Your task to perform on an android device: turn off location history Image 0: 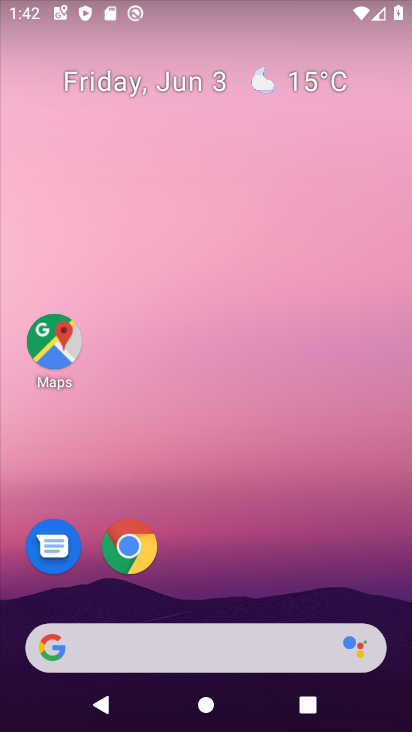
Step 0: drag from (330, 509) to (288, 0)
Your task to perform on an android device: turn off location history Image 1: 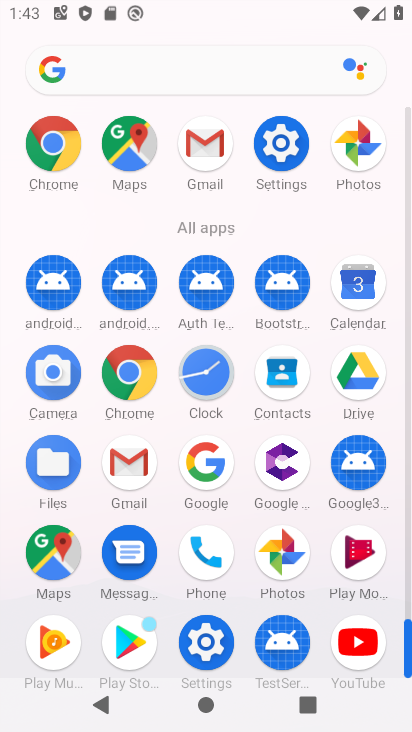
Step 1: click (295, 145)
Your task to perform on an android device: turn off location history Image 2: 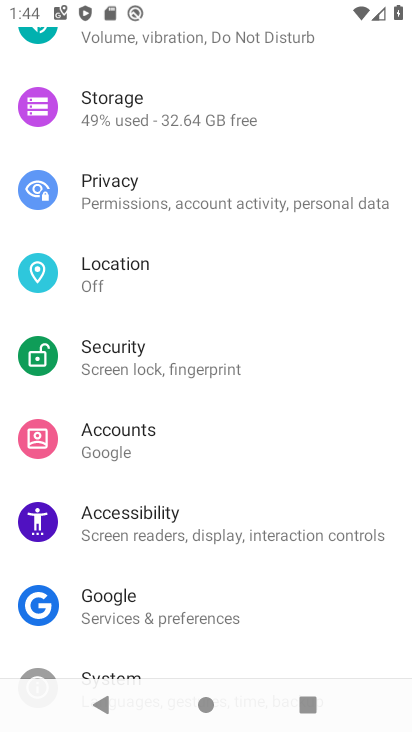
Step 2: click (136, 282)
Your task to perform on an android device: turn off location history Image 3: 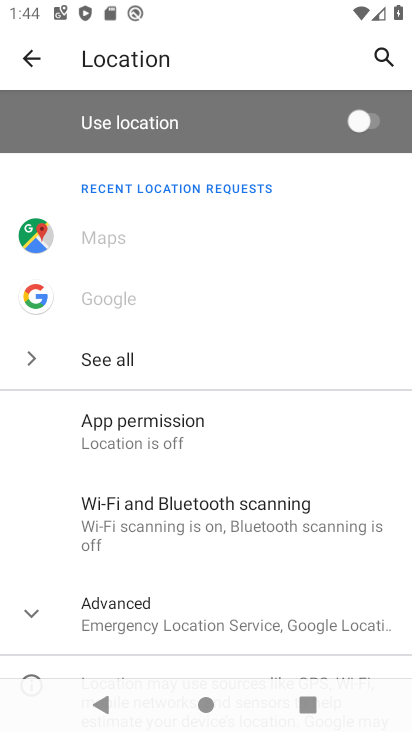
Step 3: drag from (261, 609) to (244, 236)
Your task to perform on an android device: turn off location history Image 4: 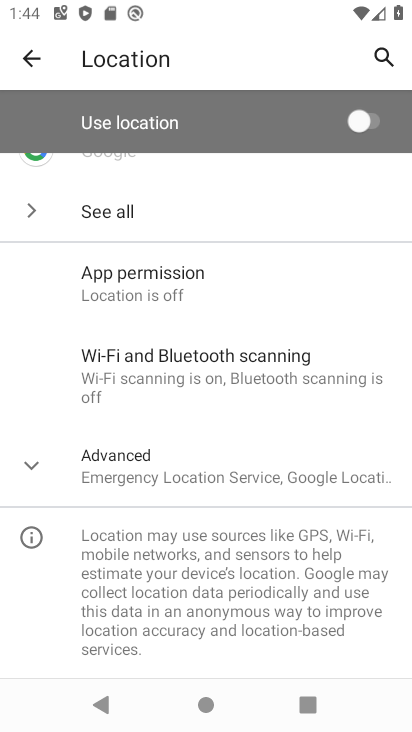
Step 4: click (158, 464)
Your task to perform on an android device: turn off location history Image 5: 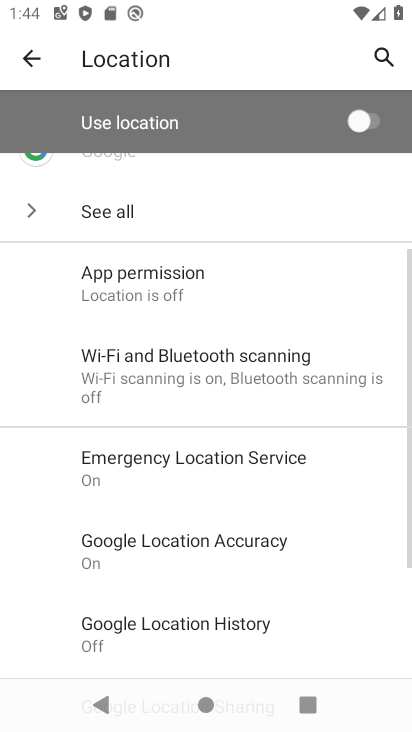
Step 5: drag from (189, 549) to (185, 147)
Your task to perform on an android device: turn off location history Image 6: 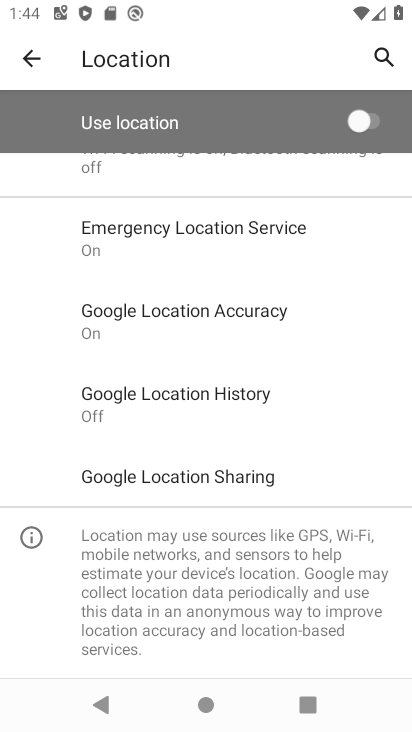
Step 6: click (191, 398)
Your task to perform on an android device: turn off location history Image 7: 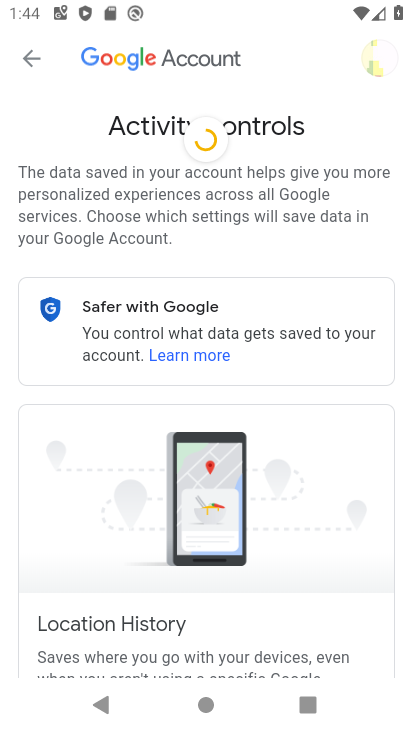
Step 7: task complete